Your task to perform on an android device: search for starred emails in the gmail app Image 0: 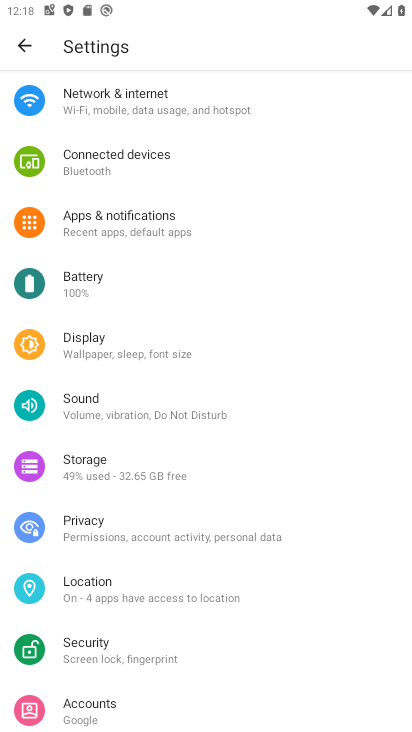
Step 0: press home button
Your task to perform on an android device: search for starred emails in the gmail app Image 1: 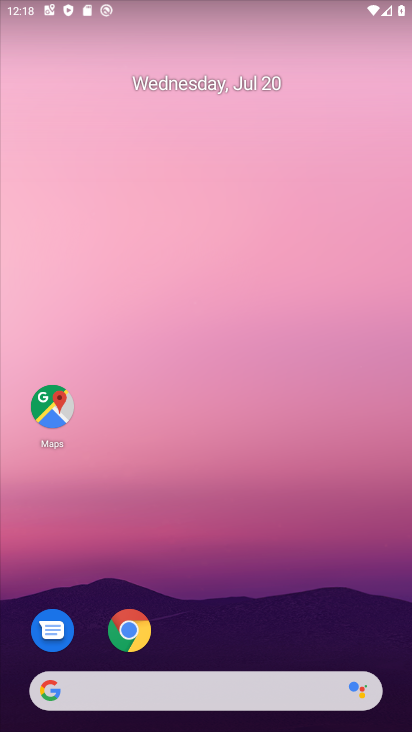
Step 1: drag from (282, 619) to (268, 78)
Your task to perform on an android device: search for starred emails in the gmail app Image 2: 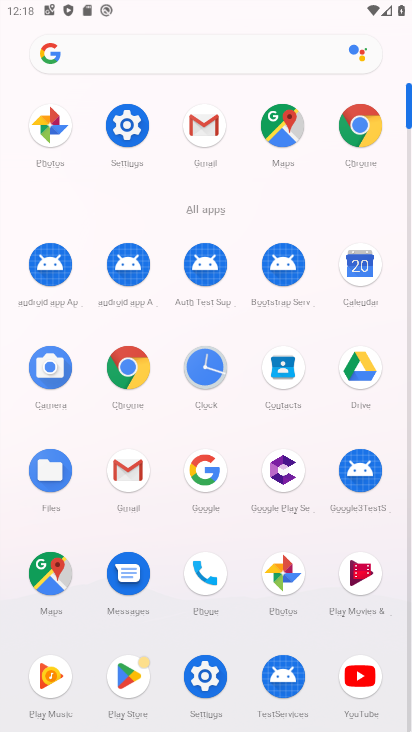
Step 2: click (209, 122)
Your task to perform on an android device: search for starred emails in the gmail app Image 3: 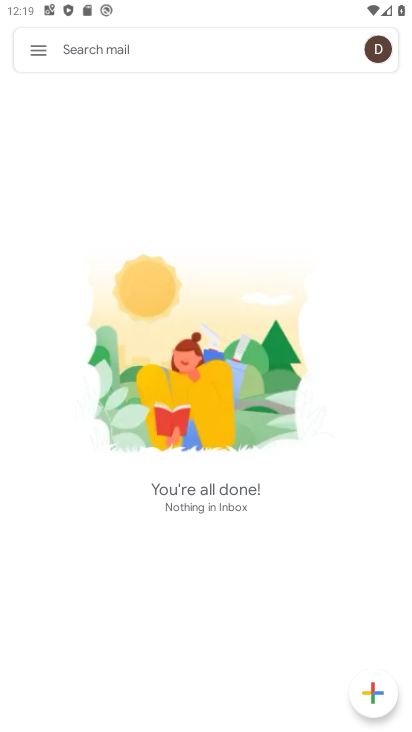
Step 3: click (40, 48)
Your task to perform on an android device: search for starred emails in the gmail app Image 4: 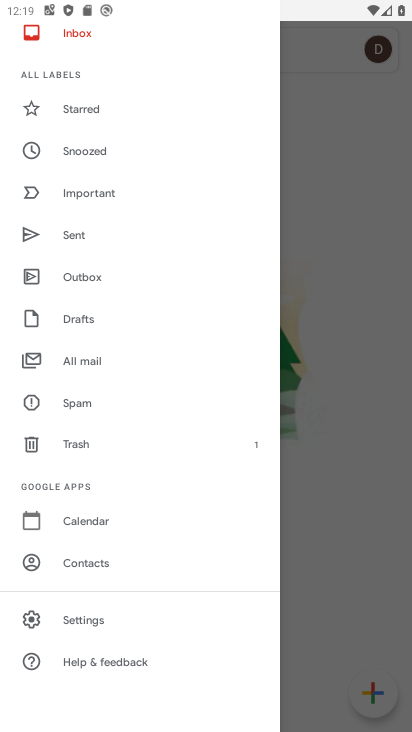
Step 4: click (72, 112)
Your task to perform on an android device: search for starred emails in the gmail app Image 5: 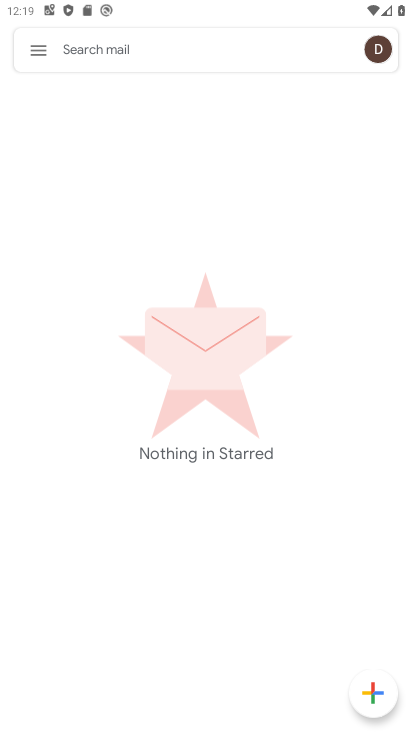
Step 5: task complete